Your task to perform on an android device: all mails in gmail Image 0: 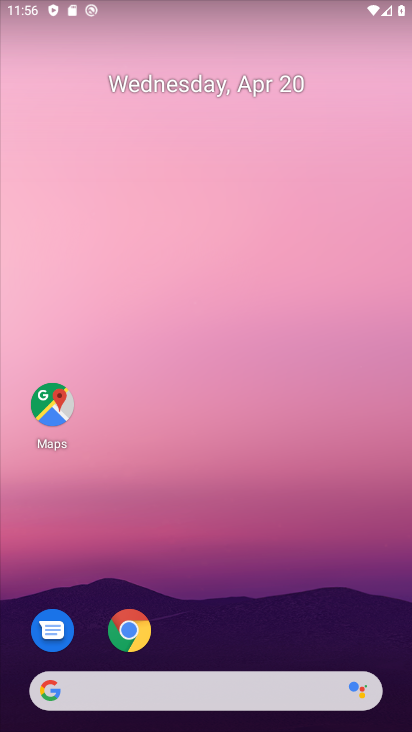
Step 0: drag from (312, 508) to (374, 109)
Your task to perform on an android device: all mails in gmail Image 1: 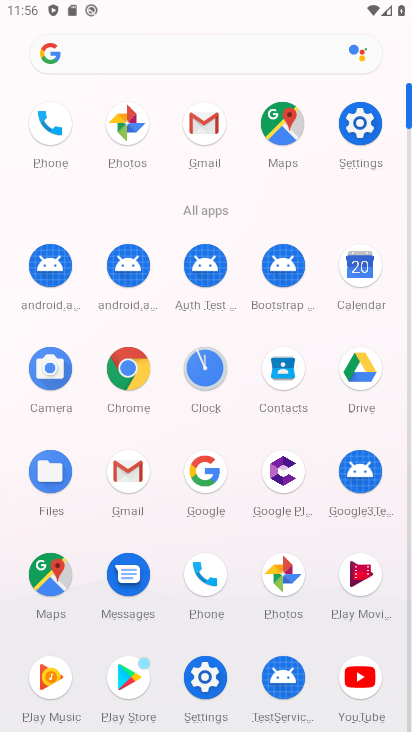
Step 1: click (193, 118)
Your task to perform on an android device: all mails in gmail Image 2: 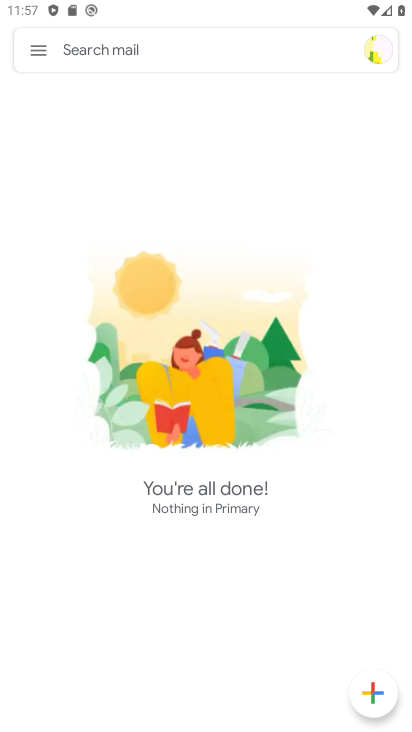
Step 2: click (41, 54)
Your task to perform on an android device: all mails in gmail Image 3: 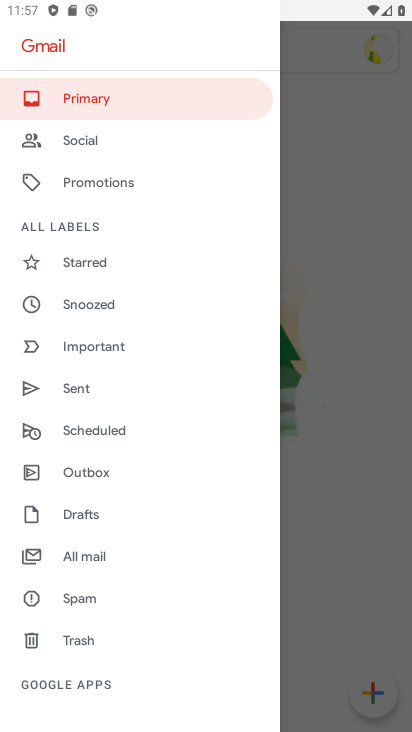
Step 3: drag from (111, 557) to (189, 228)
Your task to perform on an android device: all mails in gmail Image 4: 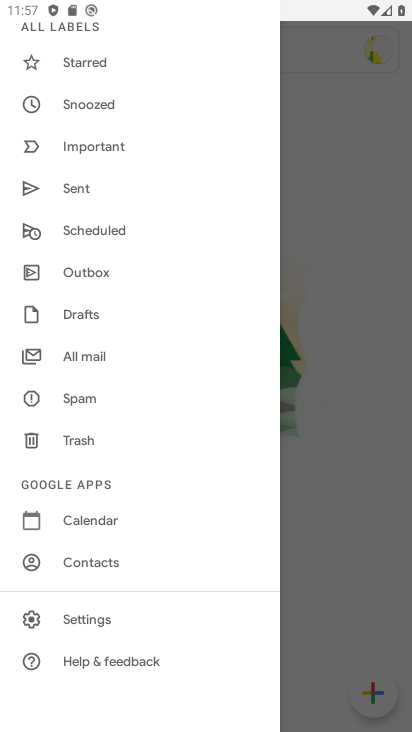
Step 4: click (79, 355)
Your task to perform on an android device: all mails in gmail Image 5: 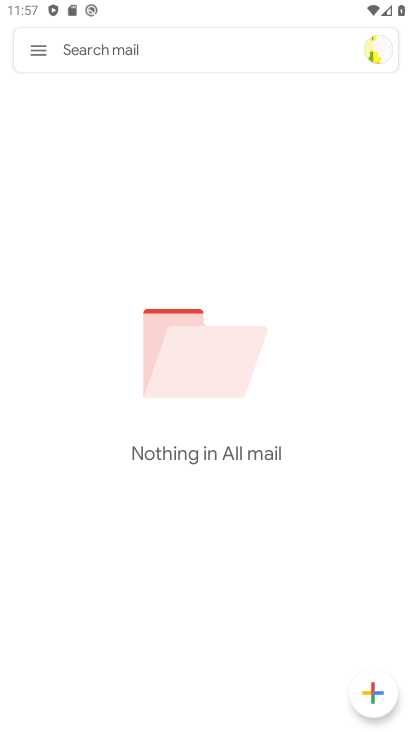
Step 5: task complete